Your task to perform on an android device: Open calendar and show me the second week of next month Image 0: 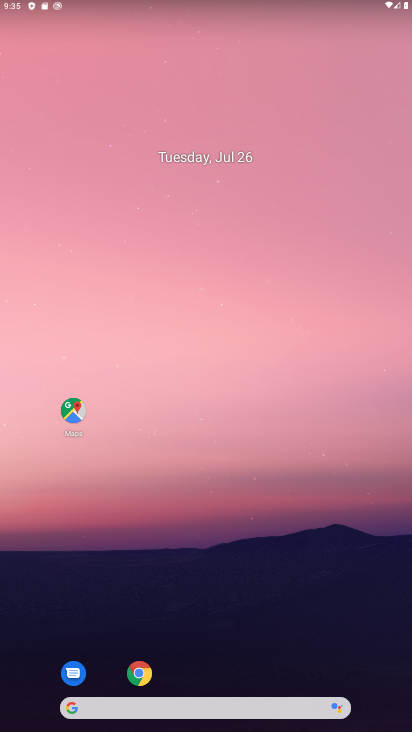
Step 0: drag from (0, 700) to (260, 153)
Your task to perform on an android device: Open calendar and show me the second week of next month Image 1: 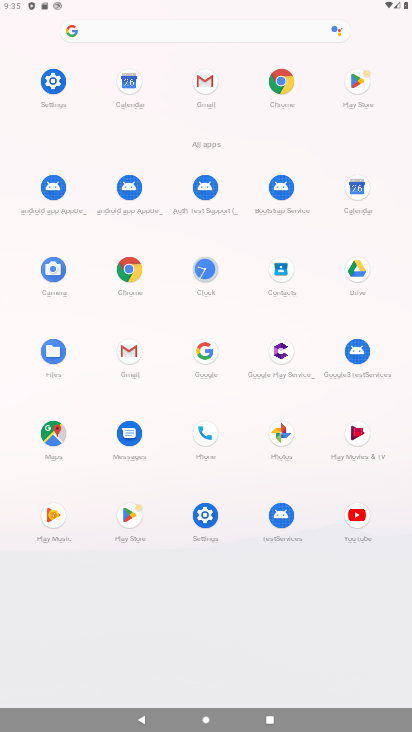
Step 1: click (347, 189)
Your task to perform on an android device: Open calendar and show me the second week of next month Image 2: 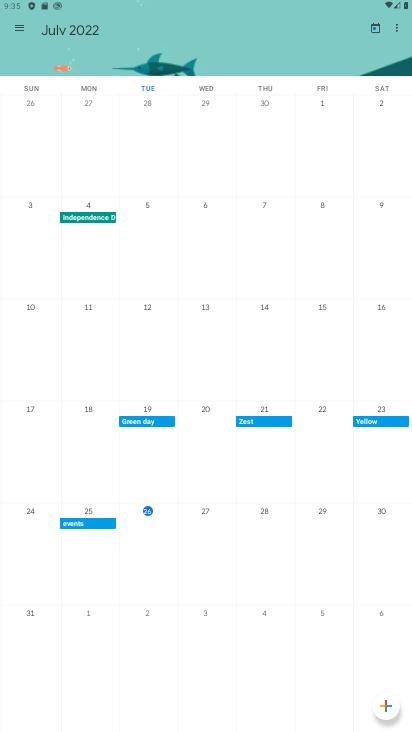
Step 2: click (64, 30)
Your task to perform on an android device: Open calendar and show me the second week of next month Image 3: 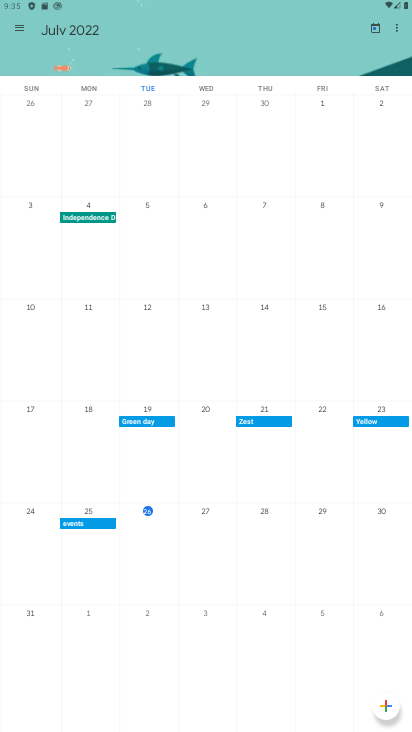
Step 3: click (64, 30)
Your task to perform on an android device: Open calendar and show me the second week of next month Image 4: 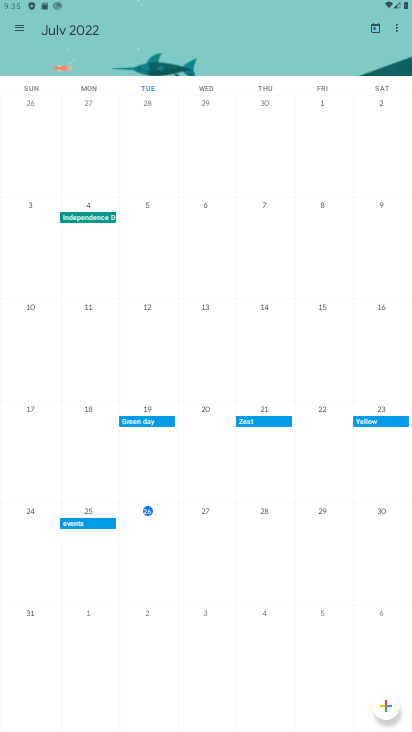
Step 4: click (381, 32)
Your task to perform on an android device: Open calendar and show me the second week of next month Image 5: 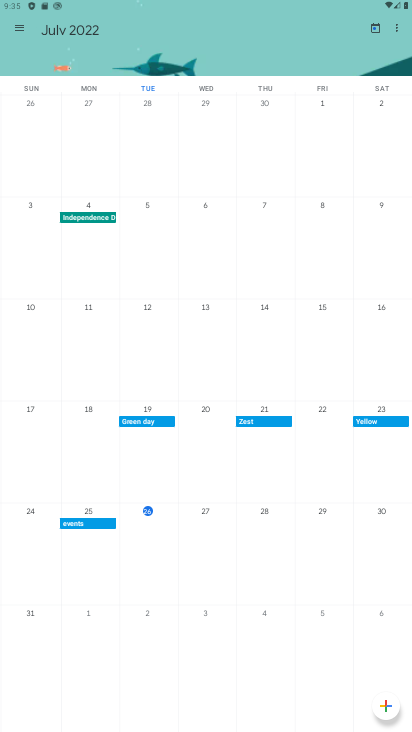
Step 5: click (365, 29)
Your task to perform on an android device: Open calendar and show me the second week of next month Image 6: 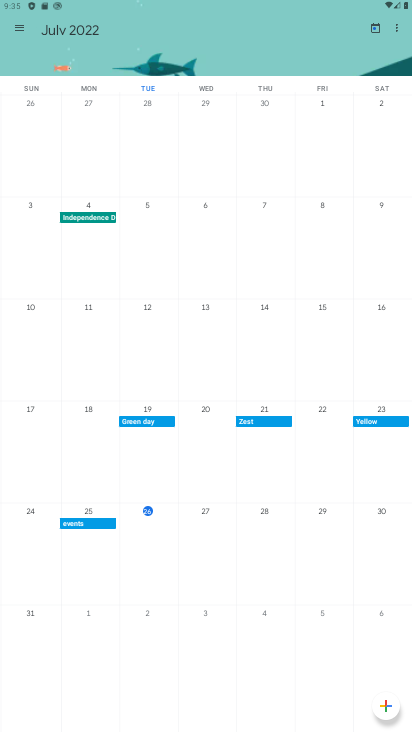
Step 6: click (52, 29)
Your task to perform on an android device: Open calendar and show me the second week of next month Image 7: 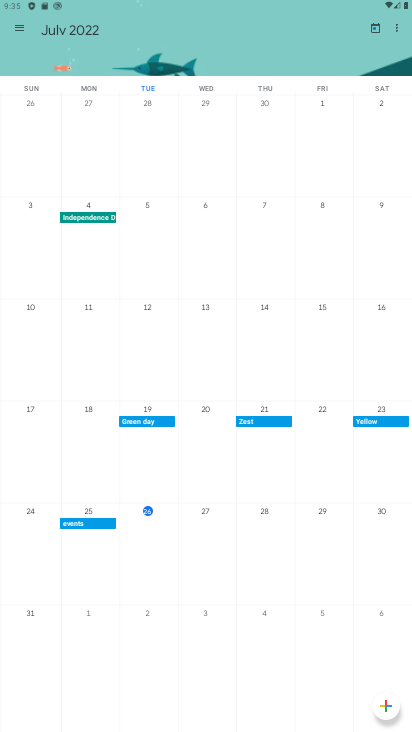
Step 7: click (16, 33)
Your task to perform on an android device: Open calendar and show me the second week of next month Image 8: 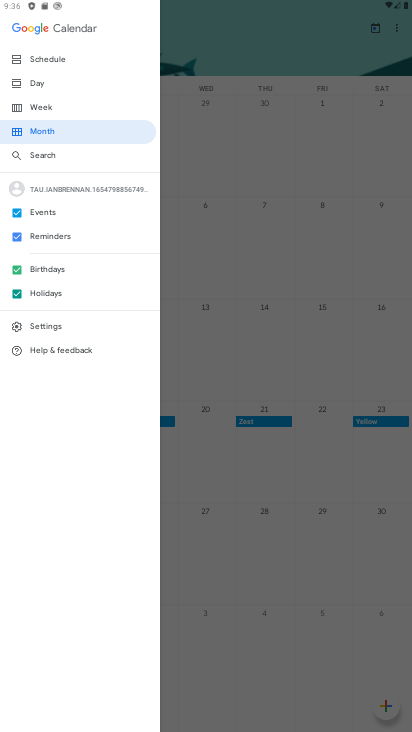
Step 8: click (52, 57)
Your task to perform on an android device: Open calendar and show me the second week of next month Image 9: 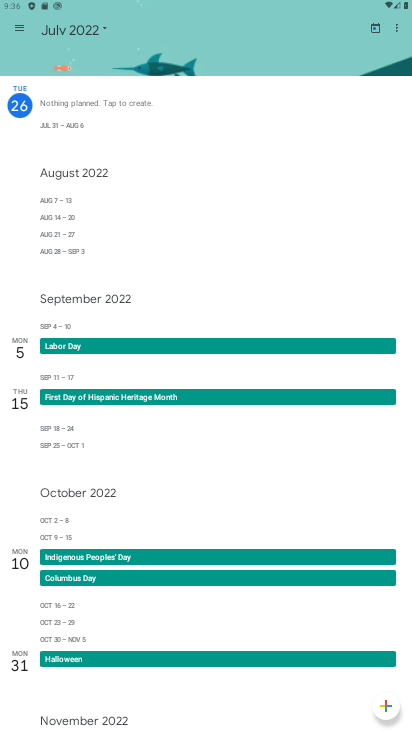
Step 9: click (80, 29)
Your task to perform on an android device: Open calendar and show me the second week of next month Image 10: 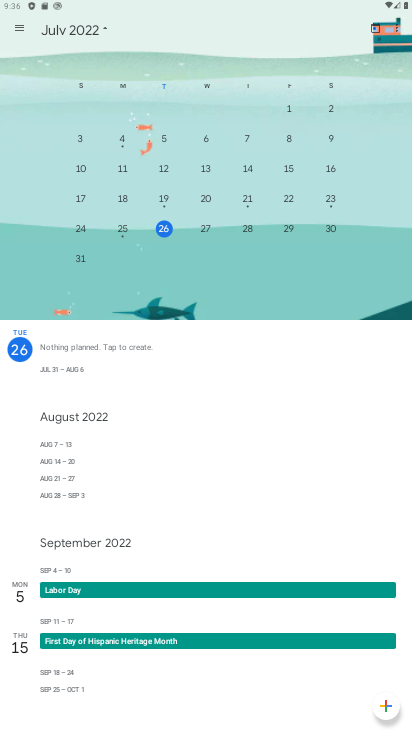
Step 10: drag from (382, 207) to (2, 299)
Your task to perform on an android device: Open calendar and show me the second week of next month Image 11: 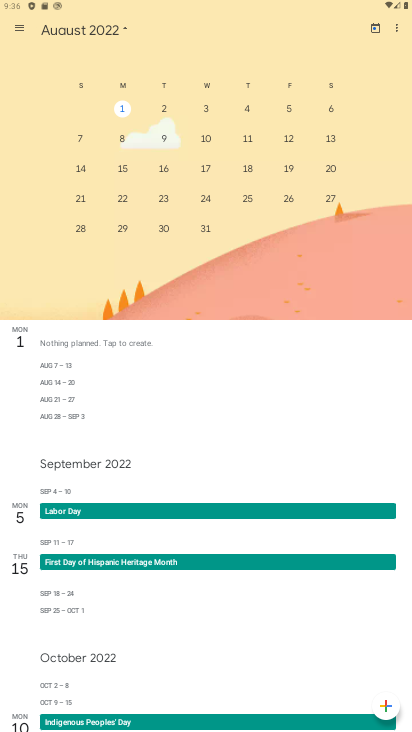
Step 11: click (119, 140)
Your task to perform on an android device: Open calendar and show me the second week of next month Image 12: 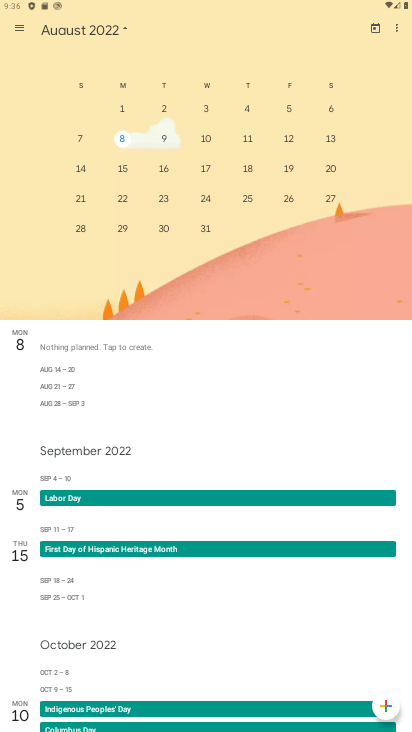
Step 12: click (161, 134)
Your task to perform on an android device: Open calendar and show me the second week of next month Image 13: 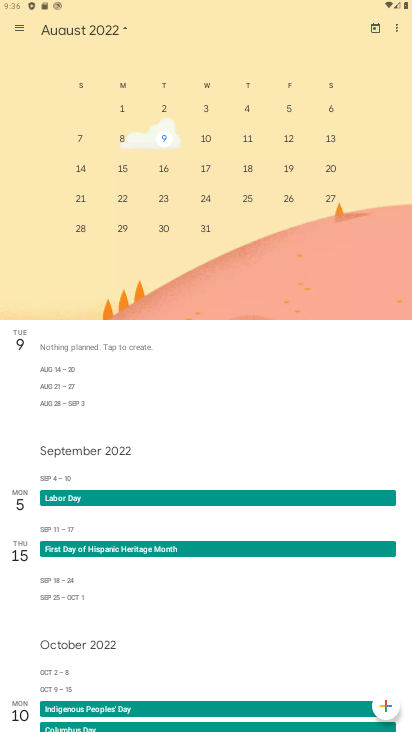
Step 13: click (206, 131)
Your task to perform on an android device: Open calendar and show me the second week of next month Image 14: 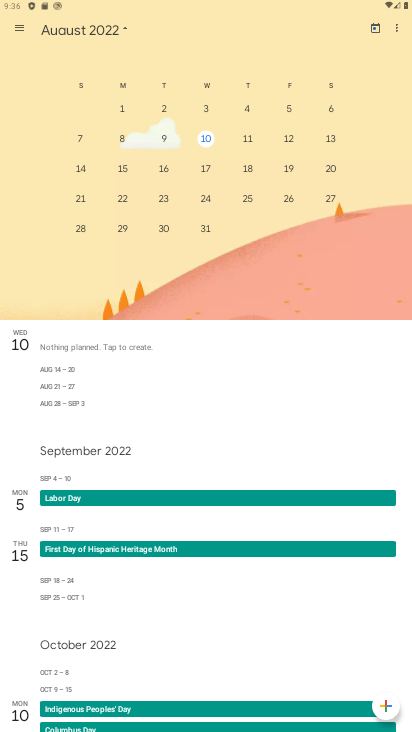
Step 14: click (250, 130)
Your task to perform on an android device: Open calendar and show me the second week of next month Image 15: 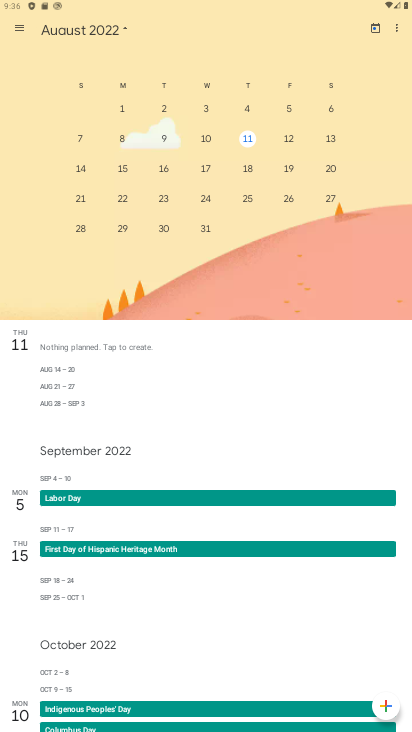
Step 15: click (287, 133)
Your task to perform on an android device: Open calendar and show me the second week of next month Image 16: 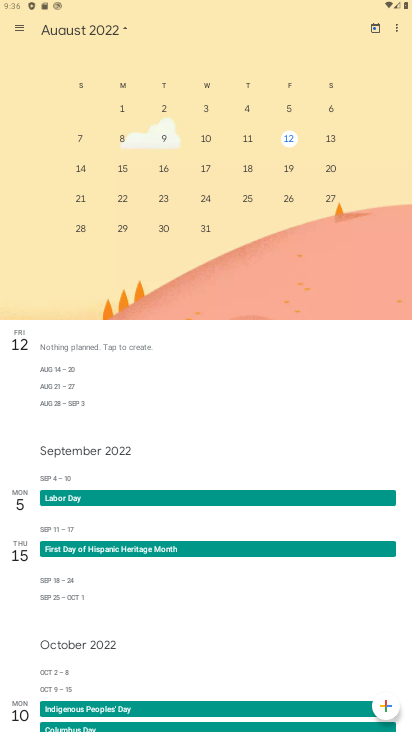
Step 16: task complete